Your task to perform on an android device: Turn off the flashlight Image 0: 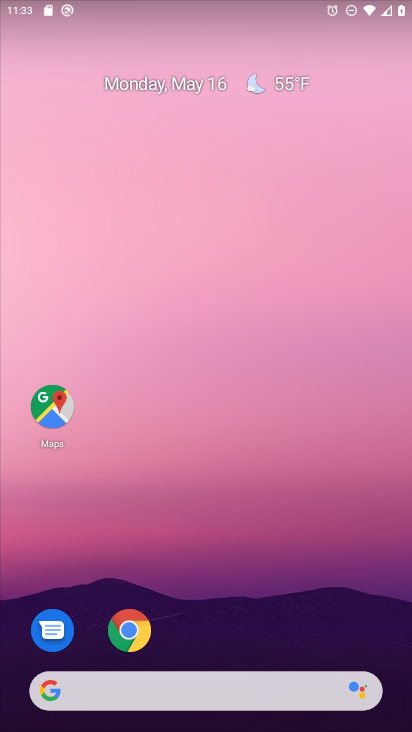
Step 0: drag from (258, 626) to (251, 205)
Your task to perform on an android device: Turn off the flashlight Image 1: 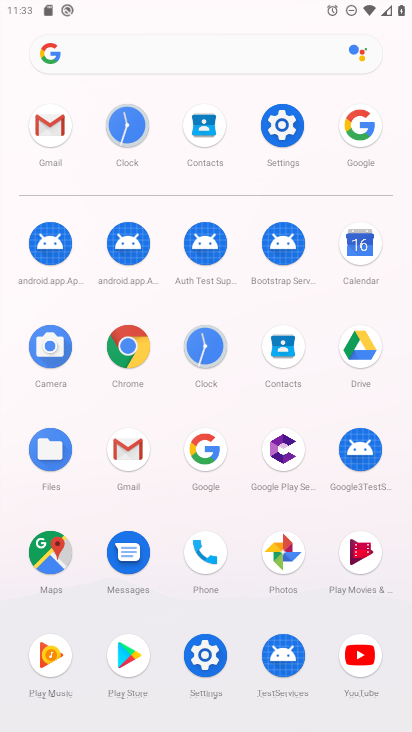
Step 1: click (285, 136)
Your task to perform on an android device: Turn off the flashlight Image 2: 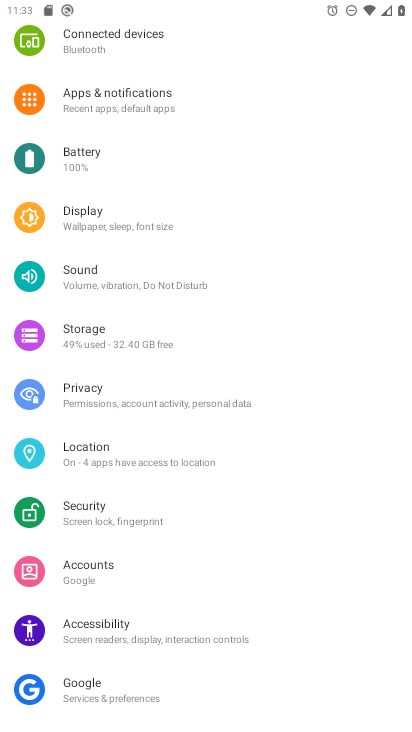
Step 2: drag from (118, 107) to (118, 349)
Your task to perform on an android device: Turn off the flashlight Image 3: 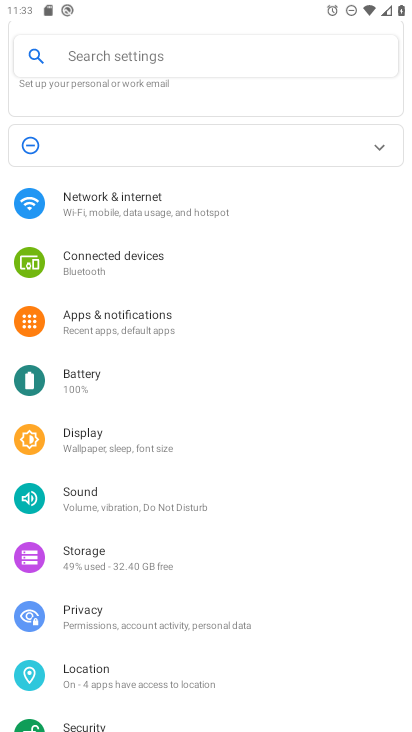
Step 3: click (141, 447)
Your task to perform on an android device: Turn off the flashlight Image 4: 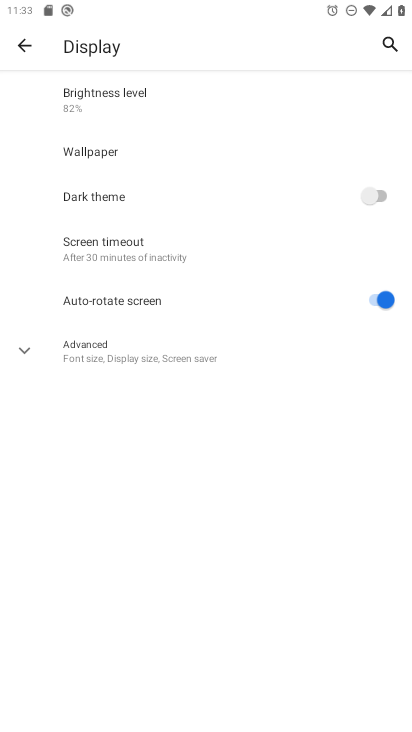
Step 4: task complete